Your task to perform on an android device: check storage Image 0: 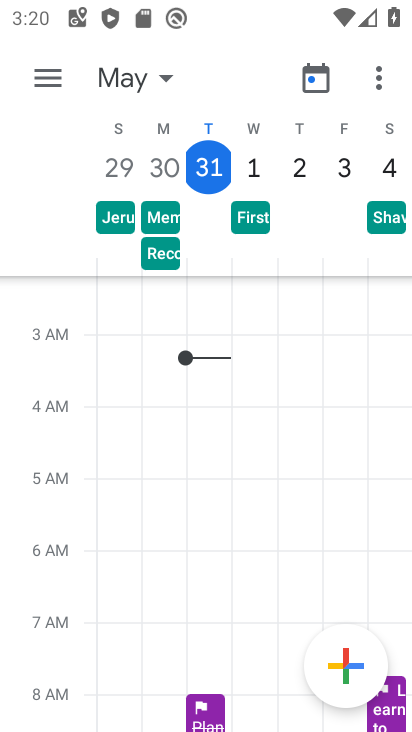
Step 0: press home button
Your task to perform on an android device: check storage Image 1: 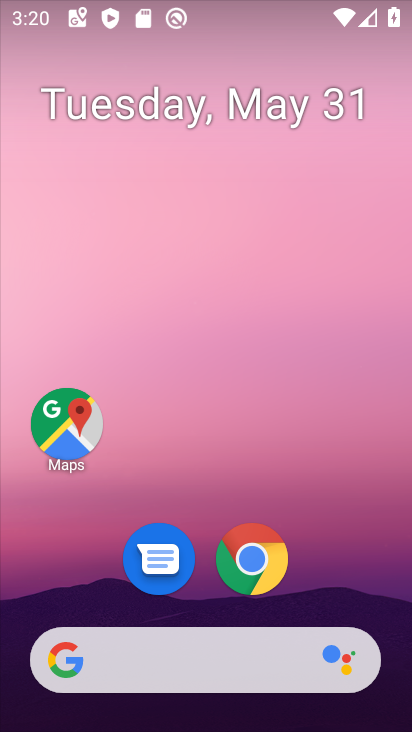
Step 1: drag from (237, 535) to (237, 21)
Your task to perform on an android device: check storage Image 2: 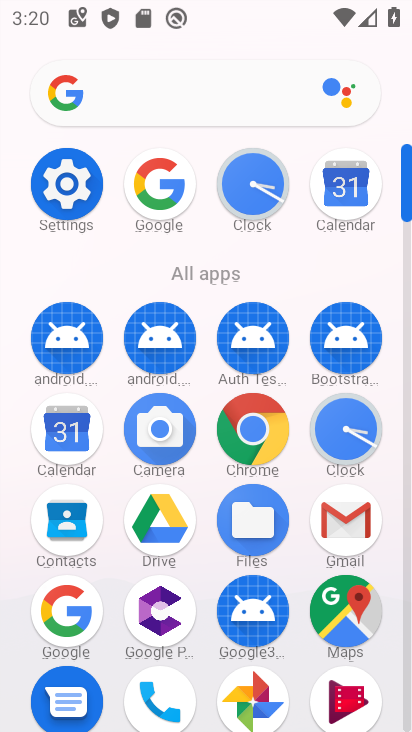
Step 2: click (68, 183)
Your task to perform on an android device: check storage Image 3: 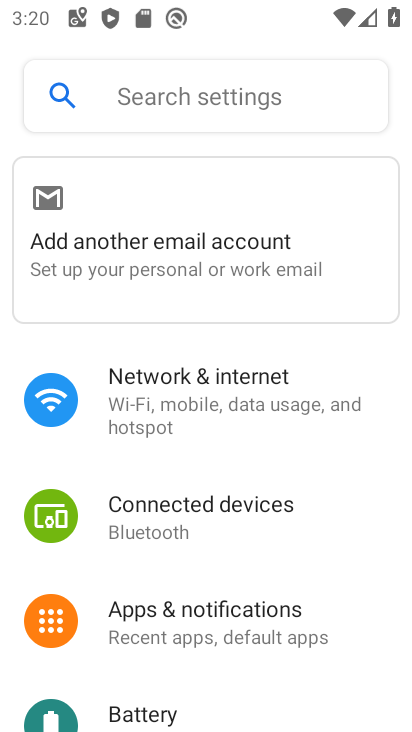
Step 3: drag from (180, 680) to (189, 330)
Your task to perform on an android device: check storage Image 4: 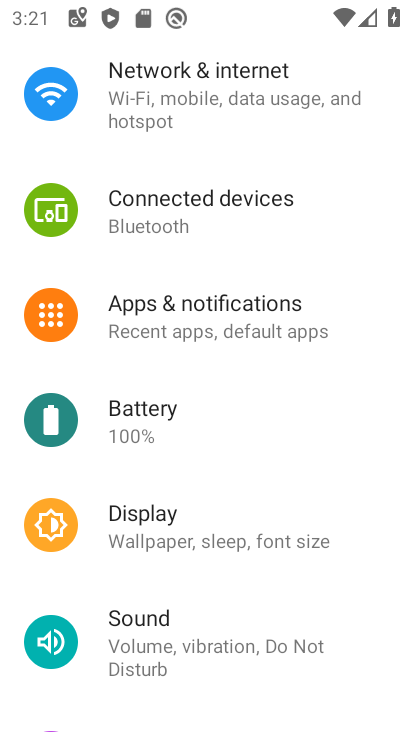
Step 4: drag from (198, 660) to (213, 250)
Your task to perform on an android device: check storage Image 5: 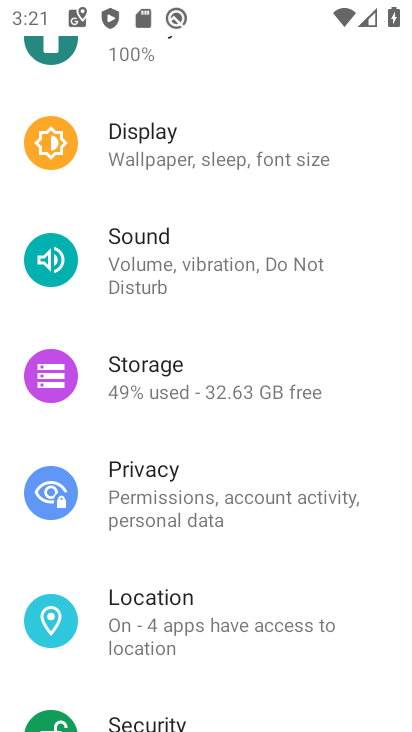
Step 5: click (139, 375)
Your task to perform on an android device: check storage Image 6: 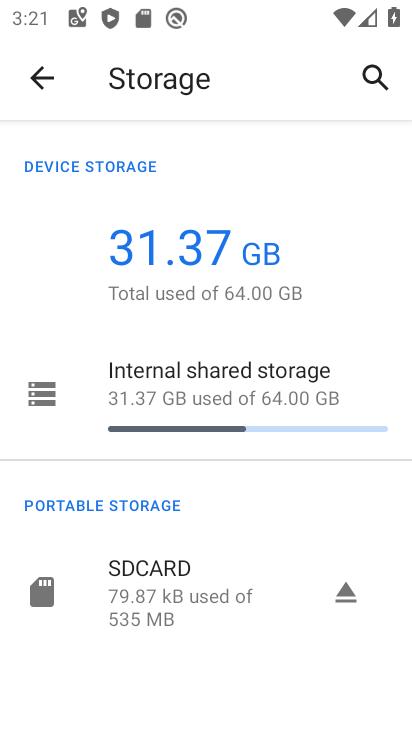
Step 6: task complete